Your task to perform on an android device: check android version Image 0: 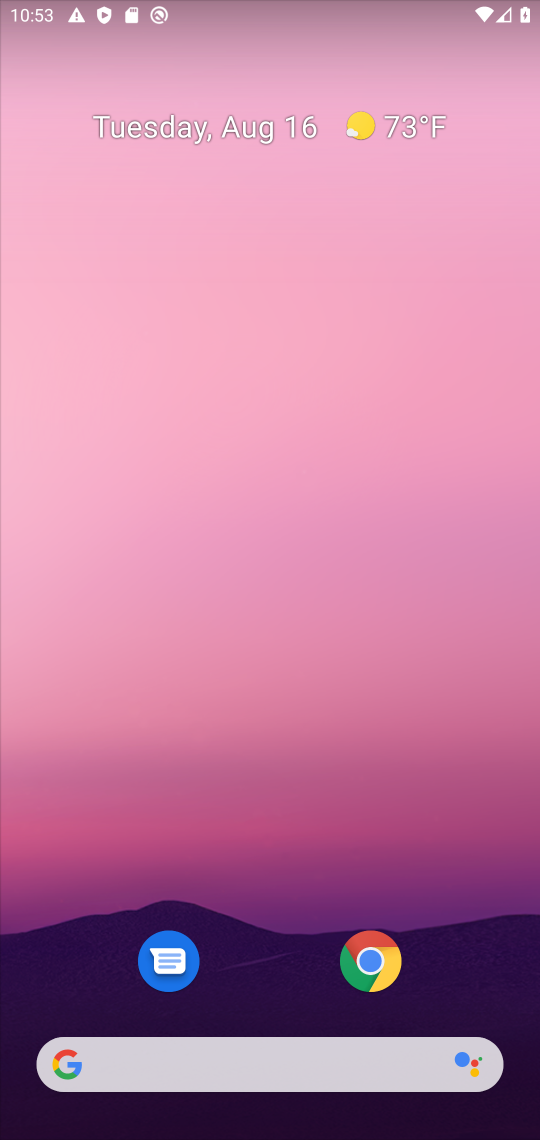
Step 0: drag from (265, 847) to (263, 304)
Your task to perform on an android device: check android version Image 1: 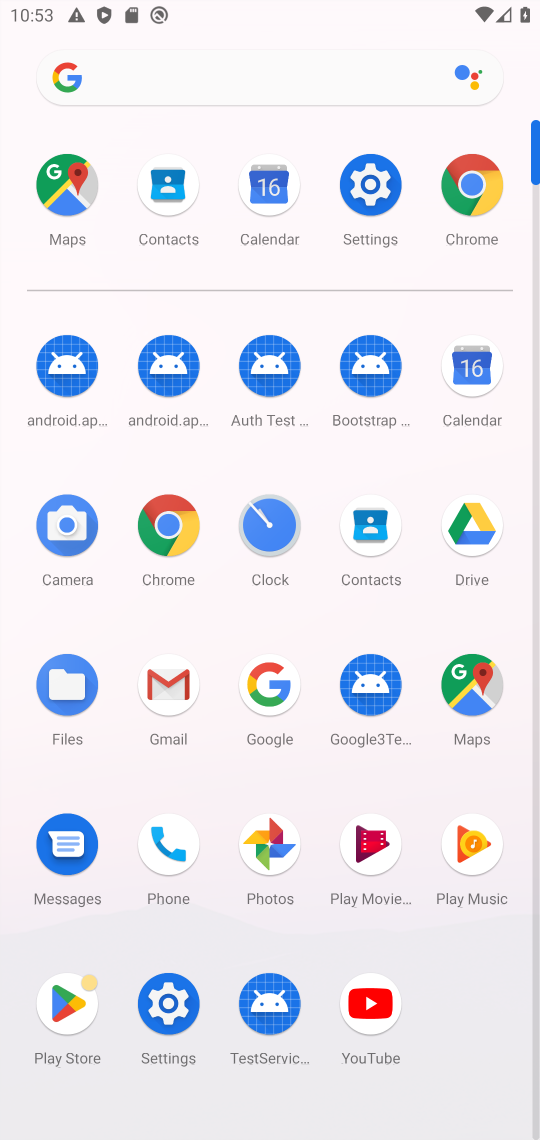
Step 1: click (168, 996)
Your task to perform on an android device: check android version Image 2: 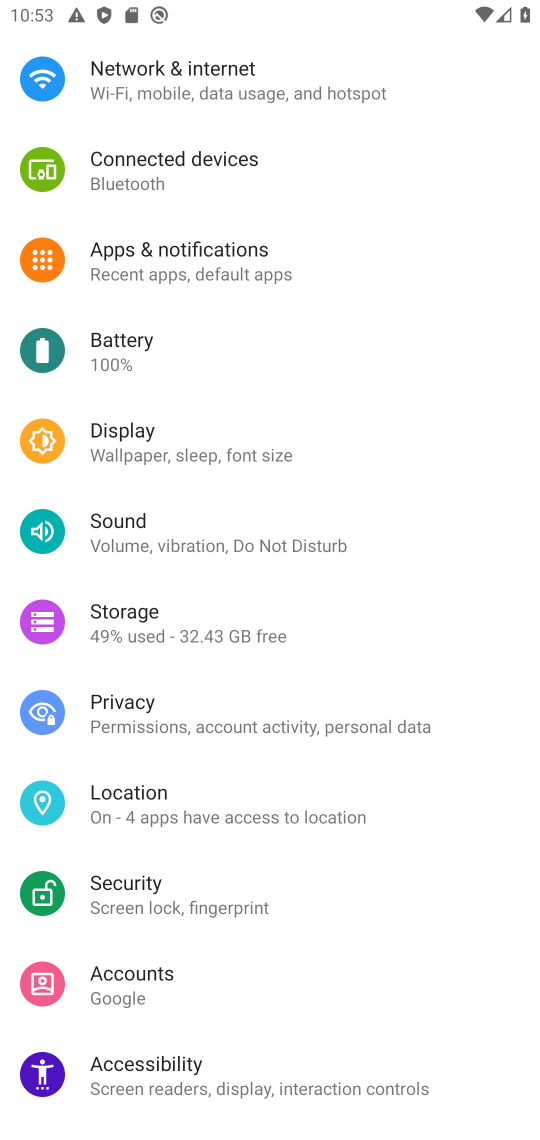
Step 2: task complete